Your task to perform on an android device: clear history in the chrome app Image 0: 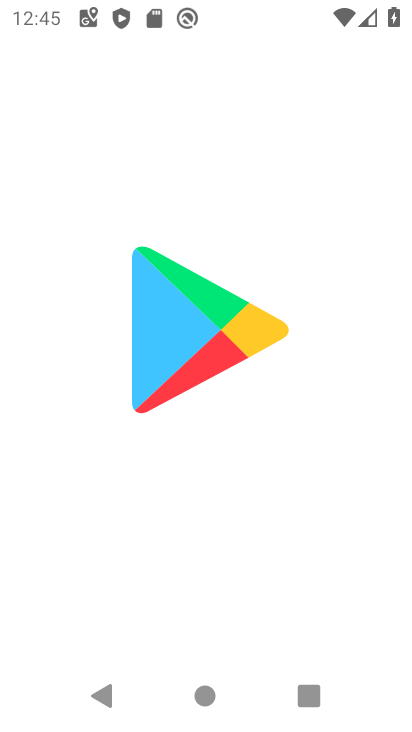
Step 0: press home button
Your task to perform on an android device: clear history in the chrome app Image 1: 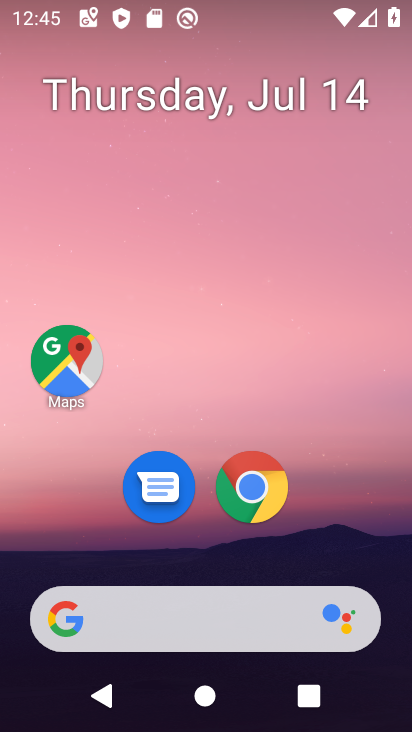
Step 1: drag from (189, 591) to (235, 128)
Your task to perform on an android device: clear history in the chrome app Image 2: 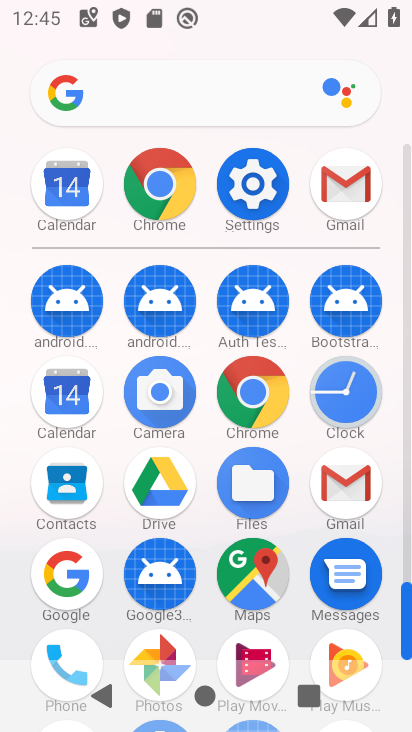
Step 2: click (163, 194)
Your task to perform on an android device: clear history in the chrome app Image 3: 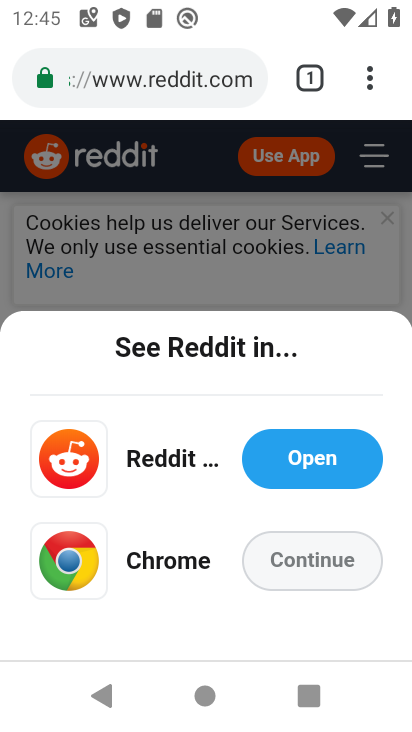
Step 3: click (371, 83)
Your task to perform on an android device: clear history in the chrome app Image 4: 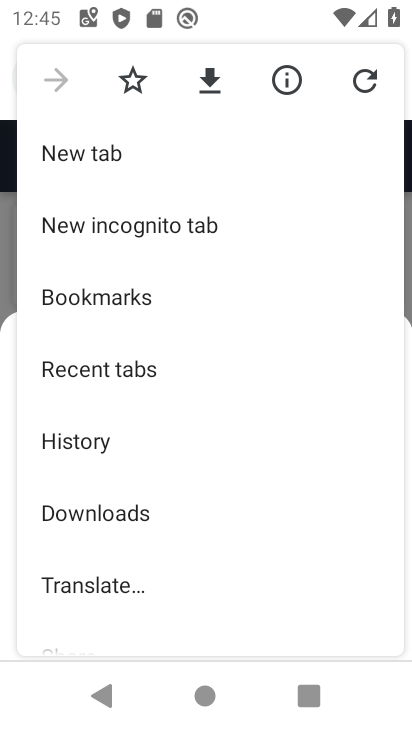
Step 4: click (83, 441)
Your task to perform on an android device: clear history in the chrome app Image 5: 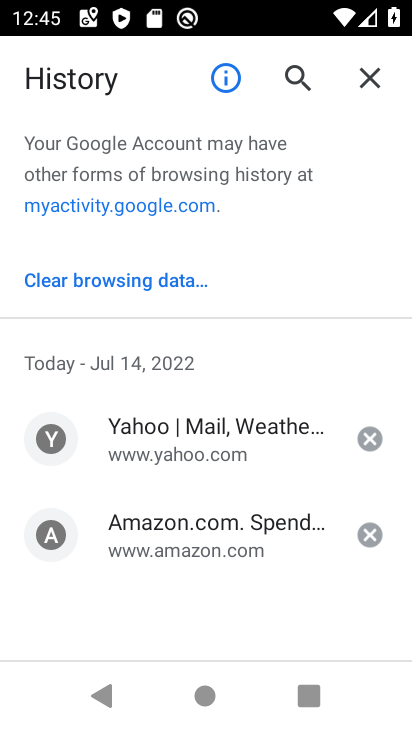
Step 5: click (141, 283)
Your task to perform on an android device: clear history in the chrome app Image 6: 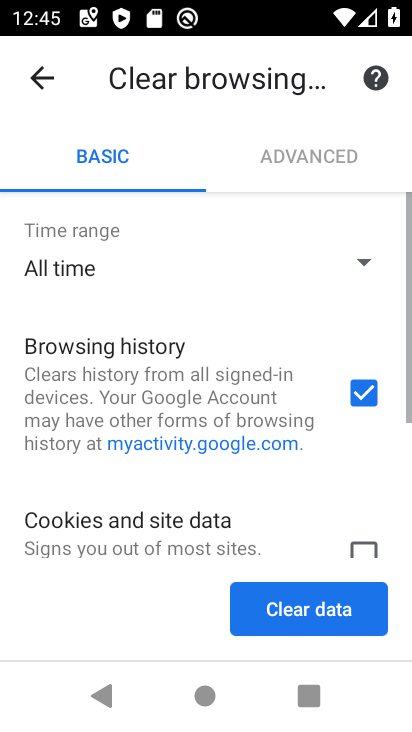
Step 6: click (307, 612)
Your task to perform on an android device: clear history in the chrome app Image 7: 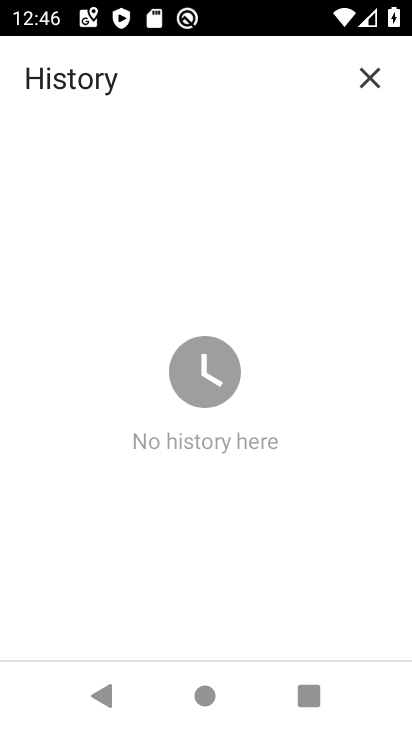
Step 7: task complete